Your task to perform on an android device: turn on bluetooth scan Image 0: 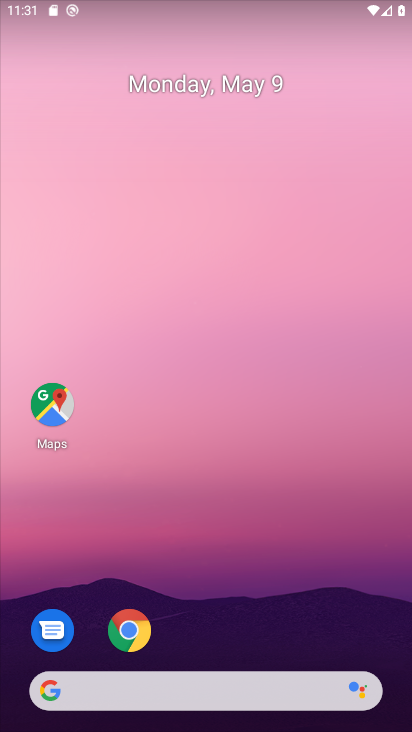
Step 0: drag from (225, 588) to (51, 118)
Your task to perform on an android device: turn on bluetooth scan Image 1: 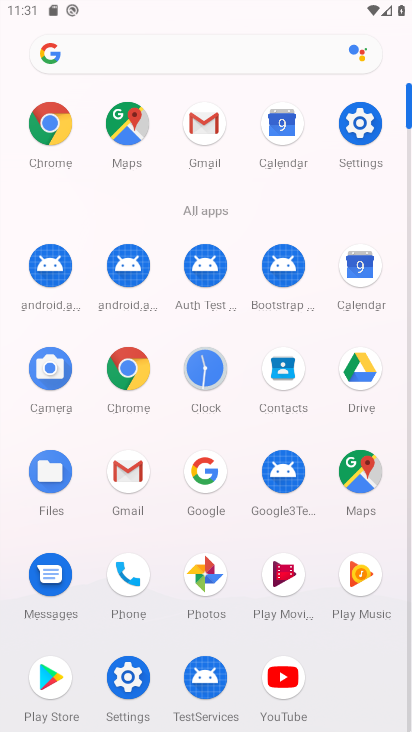
Step 1: click (359, 133)
Your task to perform on an android device: turn on bluetooth scan Image 2: 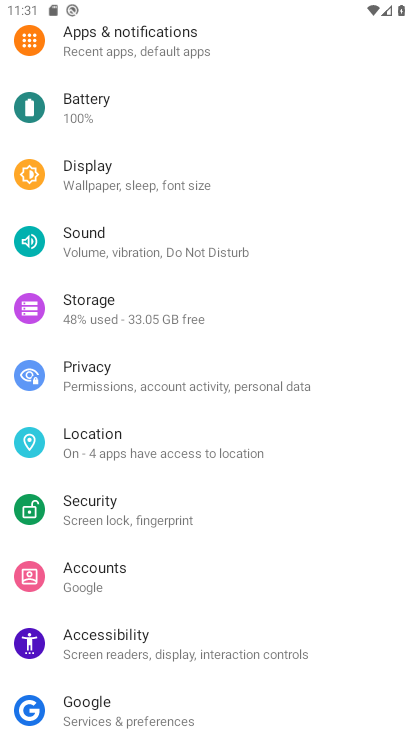
Step 2: click (122, 452)
Your task to perform on an android device: turn on bluetooth scan Image 3: 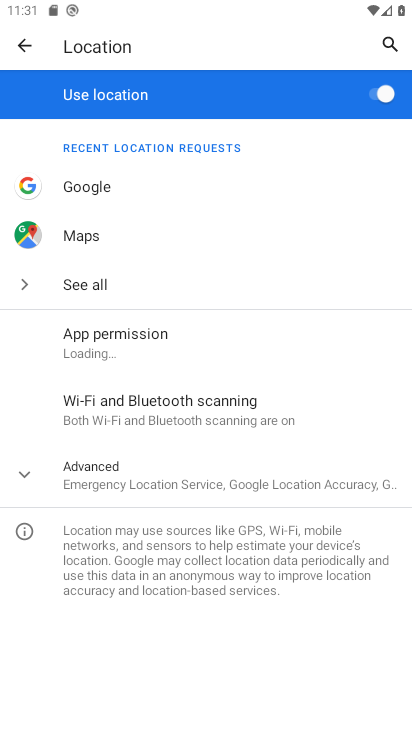
Step 3: click (142, 406)
Your task to perform on an android device: turn on bluetooth scan Image 4: 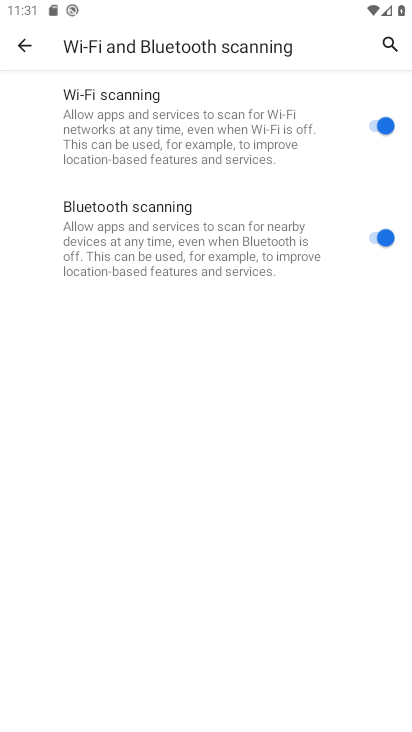
Step 4: task complete